Your task to perform on an android device: change the clock display to show seconds Image 0: 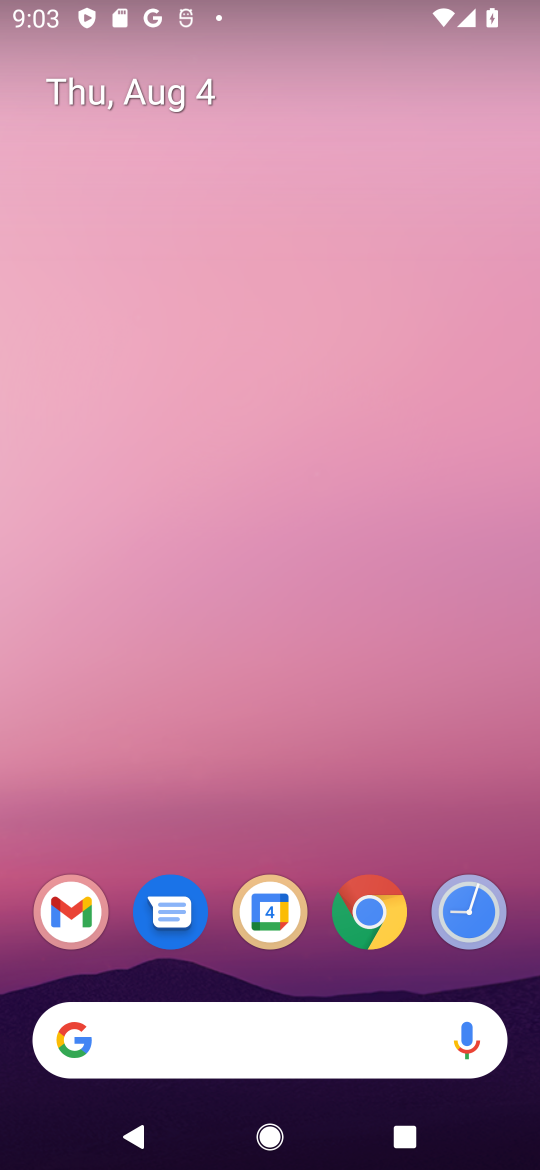
Step 0: click (481, 933)
Your task to perform on an android device: change the clock display to show seconds Image 1: 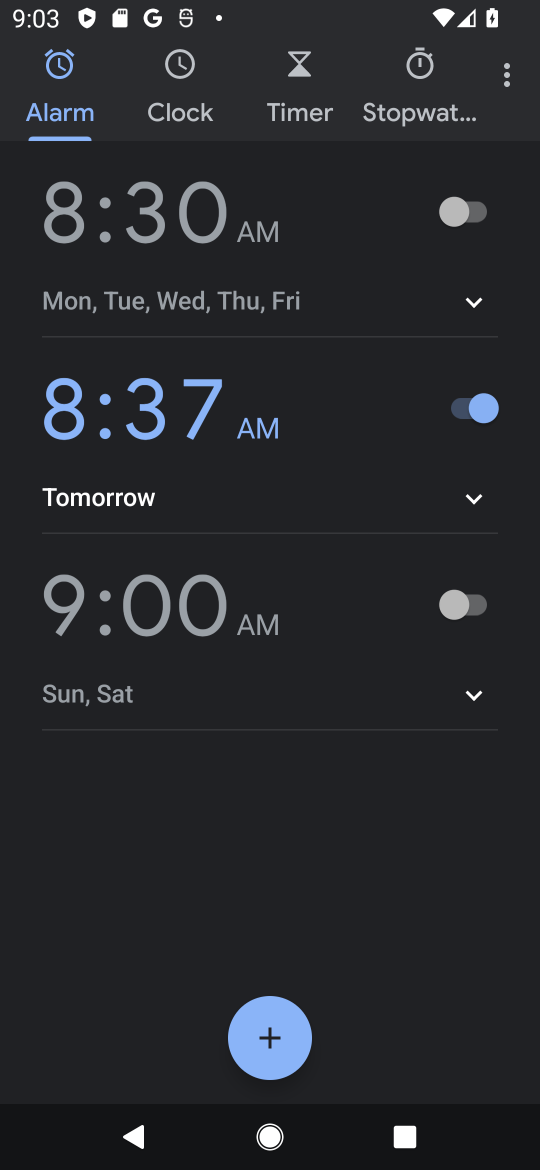
Step 1: click (506, 62)
Your task to perform on an android device: change the clock display to show seconds Image 2: 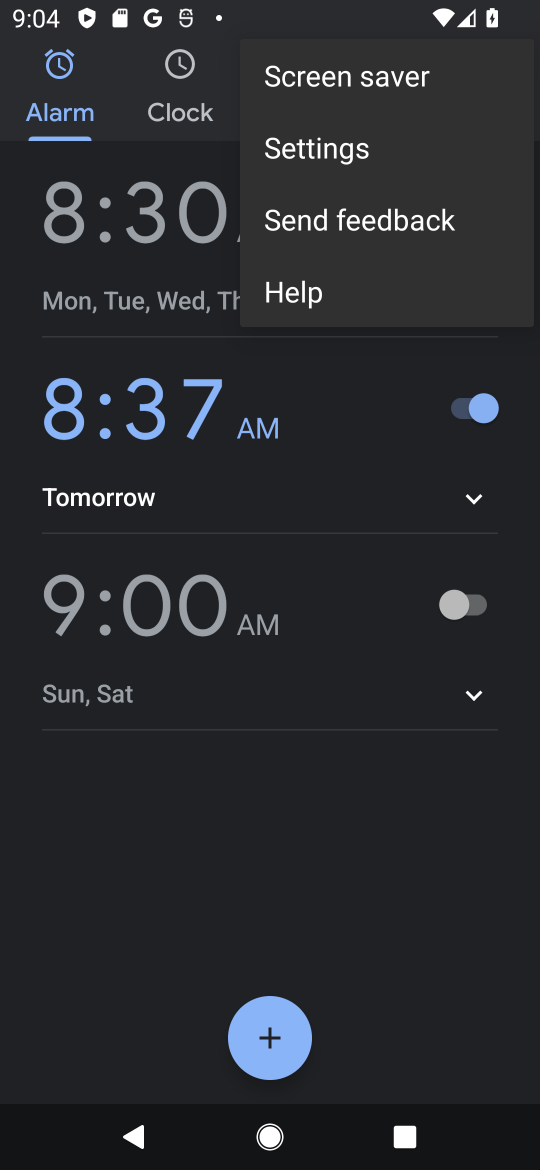
Step 2: click (379, 144)
Your task to perform on an android device: change the clock display to show seconds Image 3: 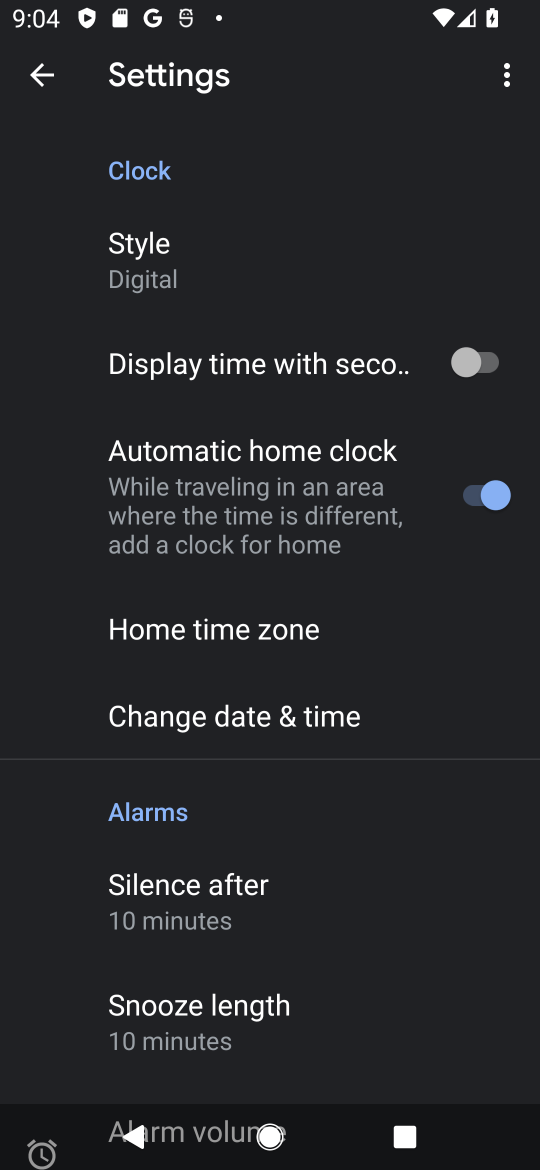
Step 3: click (489, 380)
Your task to perform on an android device: change the clock display to show seconds Image 4: 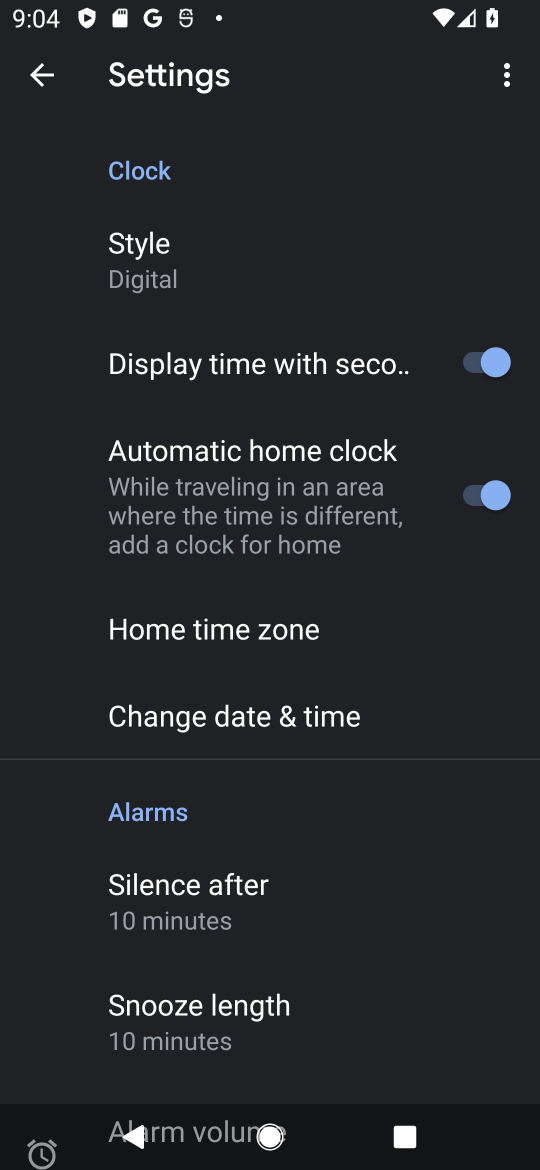
Step 4: task complete